Your task to perform on an android device: Go to battery settings Image 0: 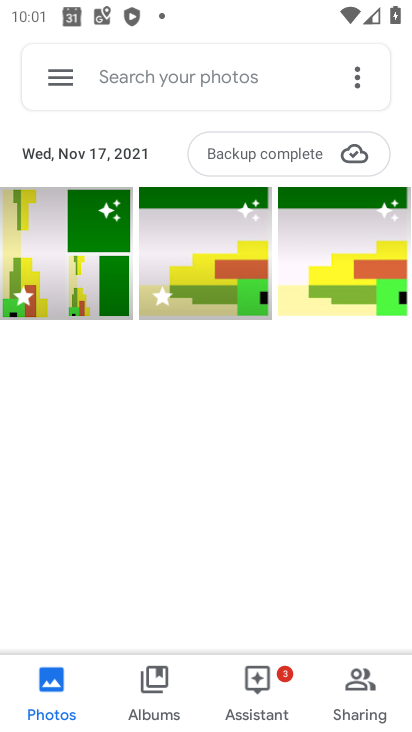
Step 0: press home button
Your task to perform on an android device: Go to battery settings Image 1: 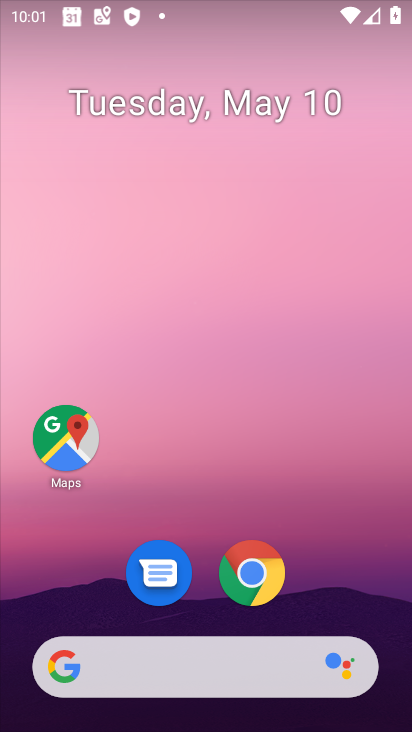
Step 1: drag from (329, 554) to (193, 141)
Your task to perform on an android device: Go to battery settings Image 2: 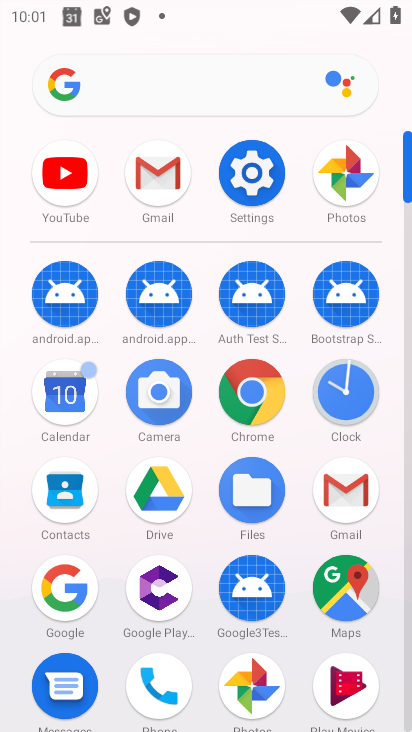
Step 2: click (254, 175)
Your task to perform on an android device: Go to battery settings Image 3: 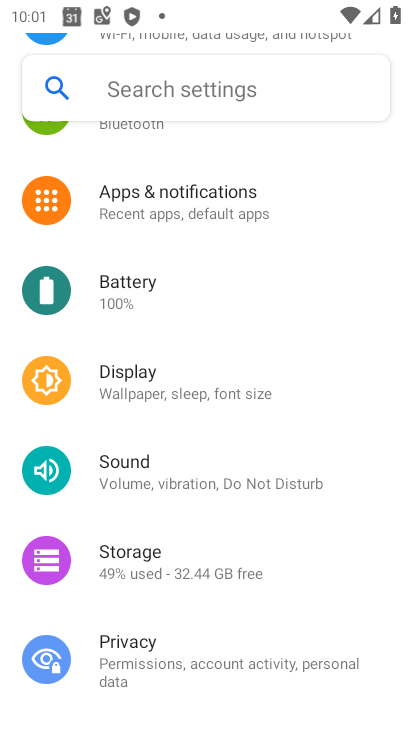
Step 3: click (128, 283)
Your task to perform on an android device: Go to battery settings Image 4: 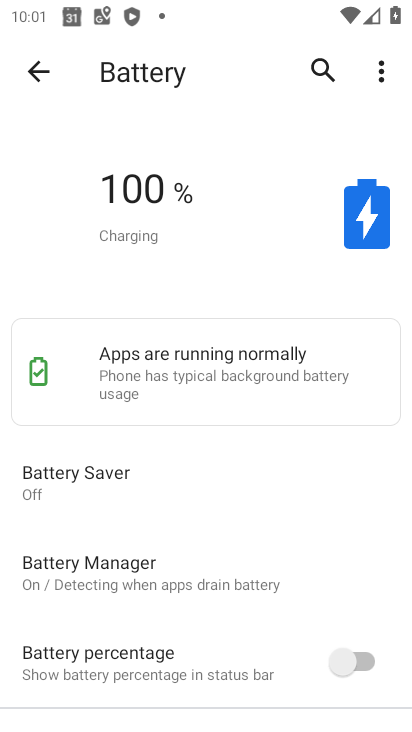
Step 4: task complete